Your task to perform on an android device: turn off location Image 0: 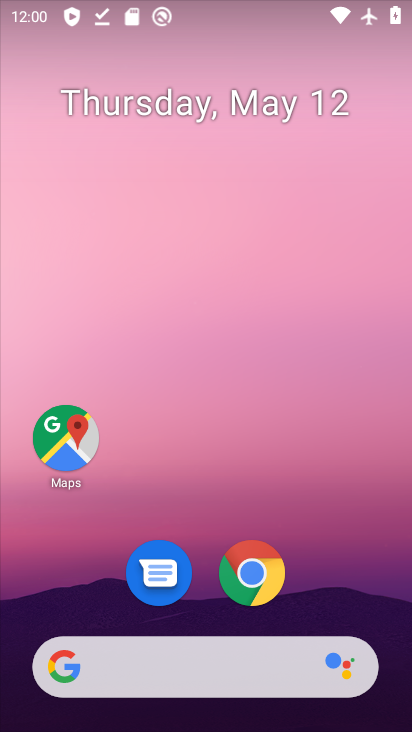
Step 0: drag from (298, 610) to (311, 147)
Your task to perform on an android device: turn off location Image 1: 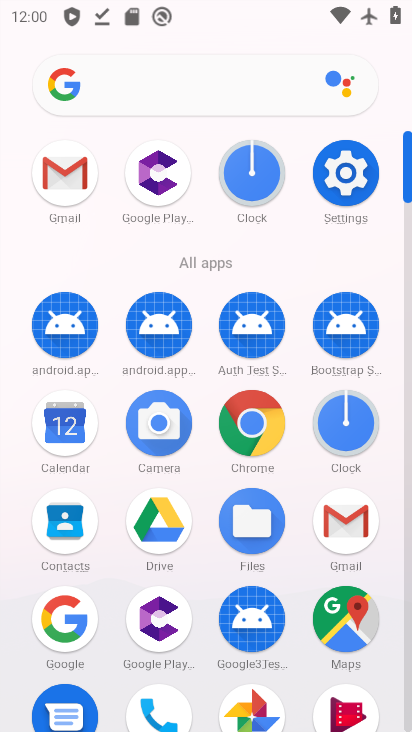
Step 1: click (349, 189)
Your task to perform on an android device: turn off location Image 2: 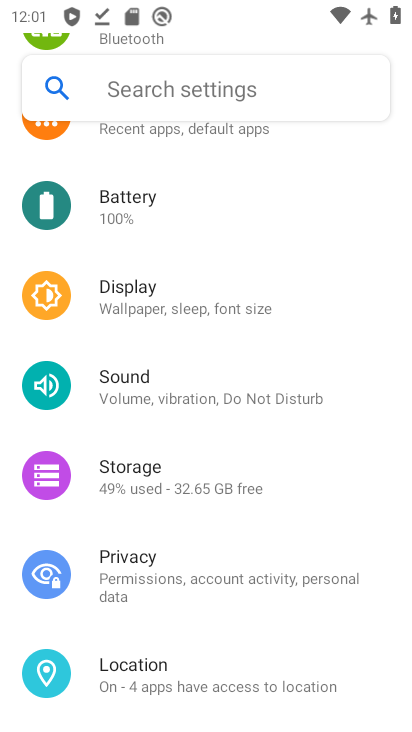
Step 2: click (184, 668)
Your task to perform on an android device: turn off location Image 3: 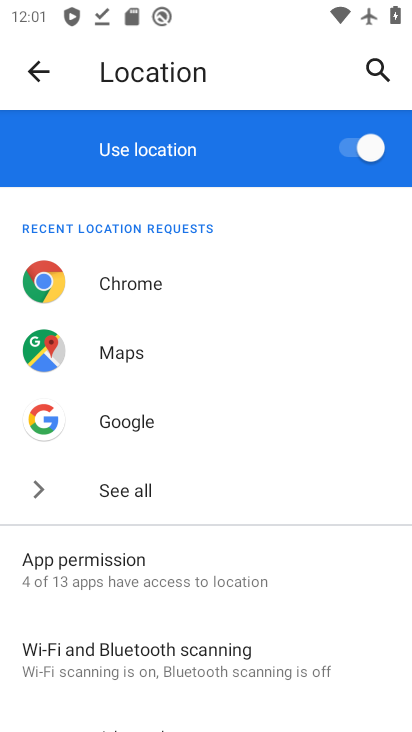
Step 3: click (365, 152)
Your task to perform on an android device: turn off location Image 4: 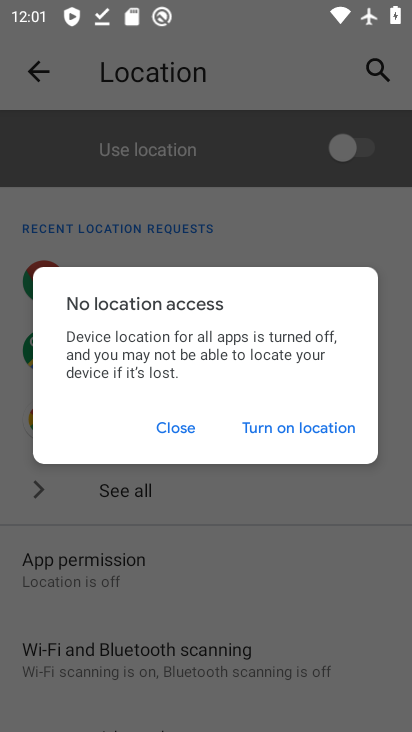
Step 4: task complete